Your task to perform on an android device: Show me productivity apps on the Play Store Image 0: 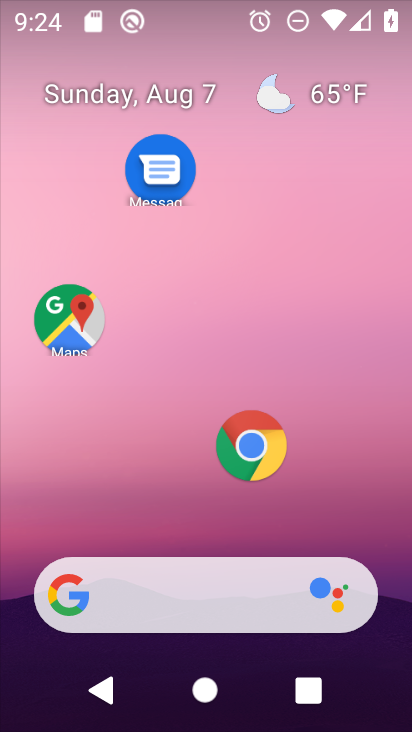
Step 0: press home button
Your task to perform on an android device: Show me productivity apps on the Play Store Image 1: 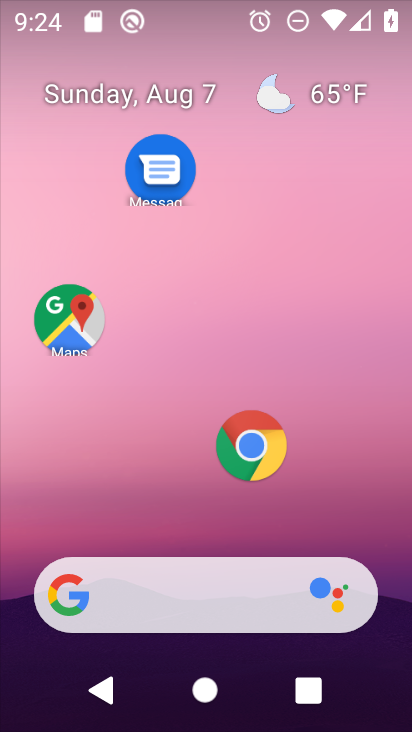
Step 1: drag from (305, 522) to (310, 82)
Your task to perform on an android device: Show me productivity apps on the Play Store Image 2: 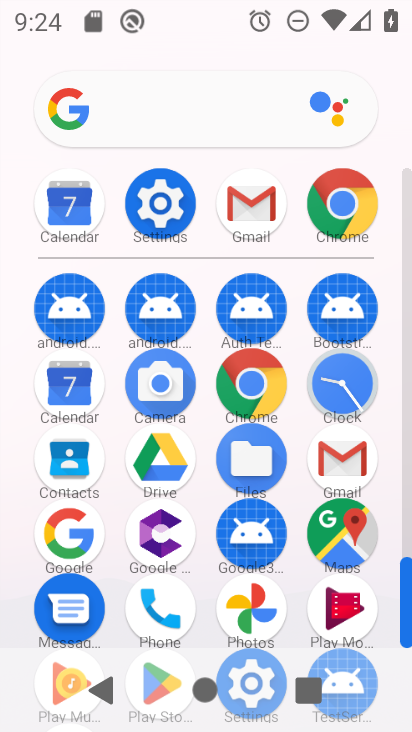
Step 2: drag from (200, 630) to (236, 121)
Your task to perform on an android device: Show me productivity apps on the Play Store Image 3: 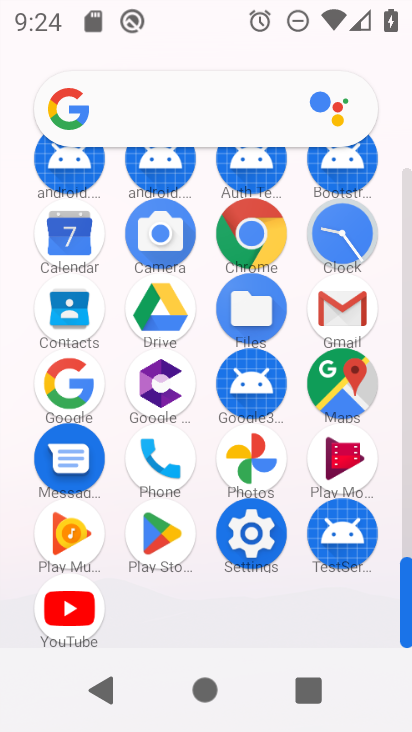
Step 3: click (152, 522)
Your task to perform on an android device: Show me productivity apps on the Play Store Image 4: 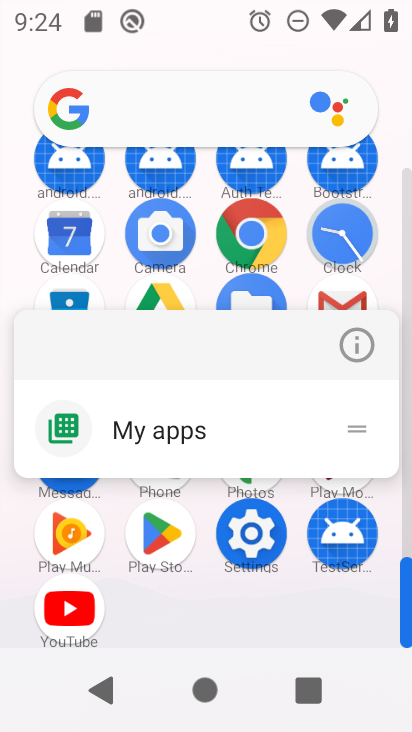
Step 4: click (155, 534)
Your task to perform on an android device: Show me productivity apps on the Play Store Image 5: 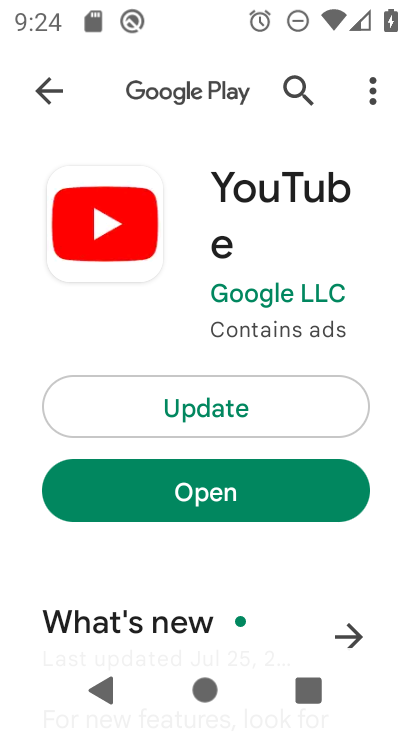
Step 5: click (57, 86)
Your task to perform on an android device: Show me productivity apps on the Play Store Image 6: 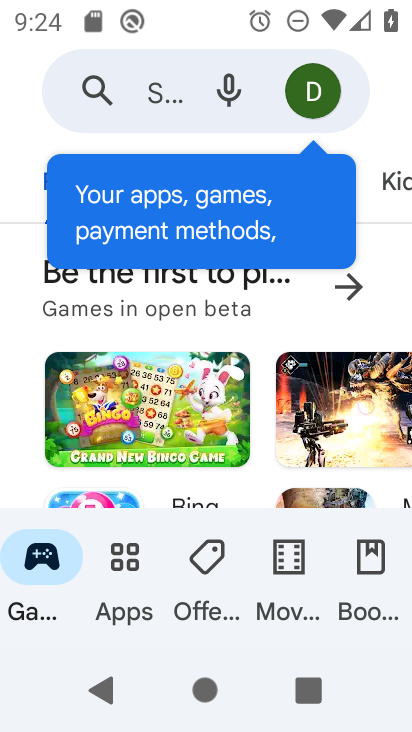
Step 6: click (124, 556)
Your task to perform on an android device: Show me productivity apps on the Play Store Image 7: 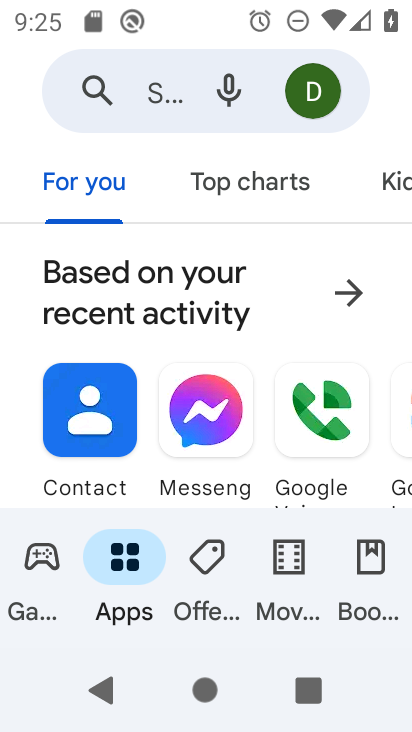
Step 7: drag from (380, 183) to (113, 199)
Your task to perform on an android device: Show me productivity apps on the Play Store Image 8: 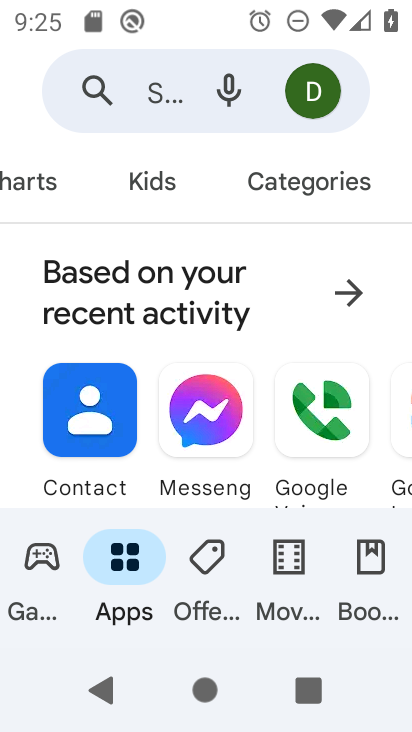
Step 8: click (307, 195)
Your task to perform on an android device: Show me productivity apps on the Play Store Image 9: 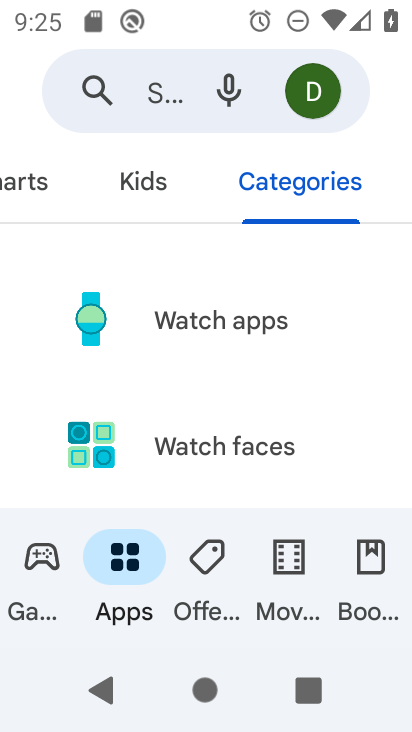
Step 9: drag from (233, 459) to (234, 55)
Your task to perform on an android device: Show me productivity apps on the Play Store Image 10: 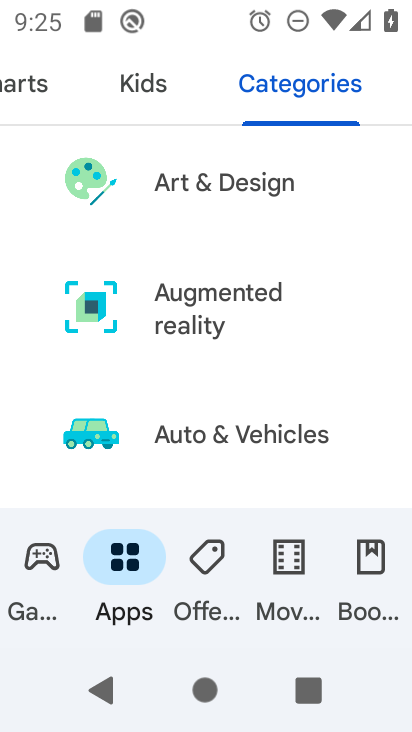
Step 10: drag from (188, 486) to (211, 43)
Your task to perform on an android device: Show me productivity apps on the Play Store Image 11: 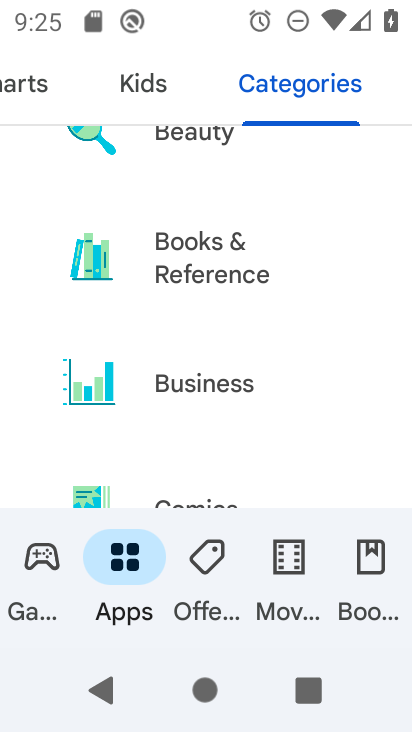
Step 11: drag from (187, 473) to (183, 133)
Your task to perform on an android device: Show me productivity apps on the Play Store Image 12: 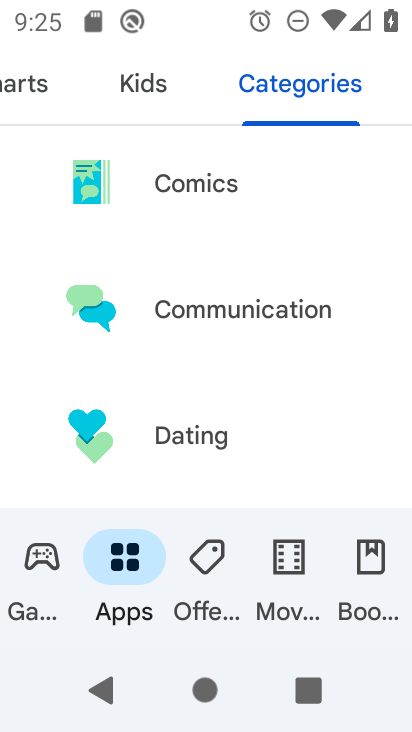
Step 12: drag from (229, 456) to (236, 121)
Your task to perform on an android device: Show me productivity apps on the Play Store Image 13: 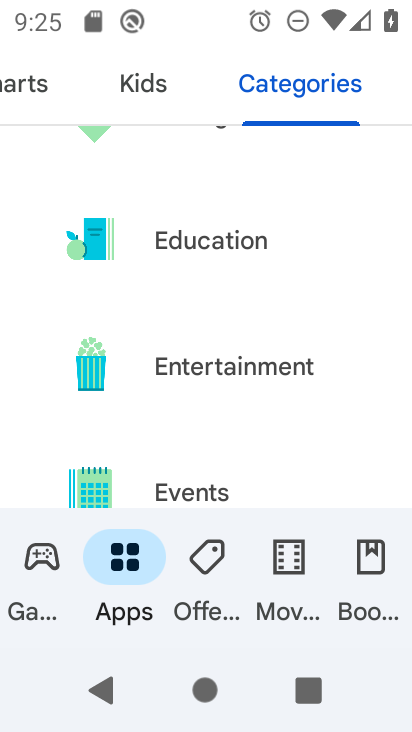
Step 13: drag from (237, 473) to (248, 110)
Your task to perform on an android device: Show me productivity apps on the Play Store Image 14: 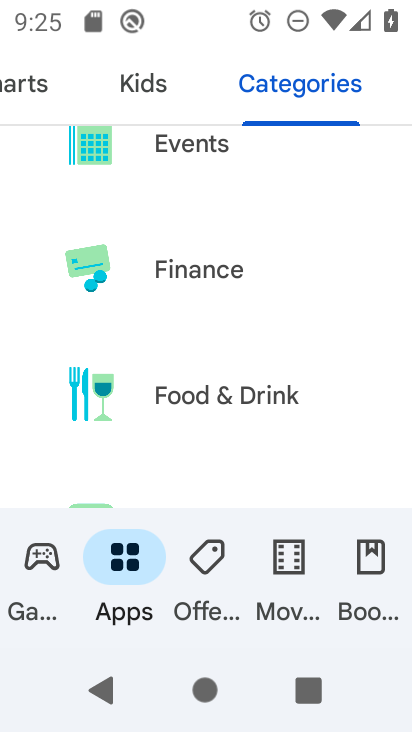
Step 14: drag from (221, 459) to (219, 120)
Your task to perform on an android device: Show me productivity apps on the Play Store Image 15: 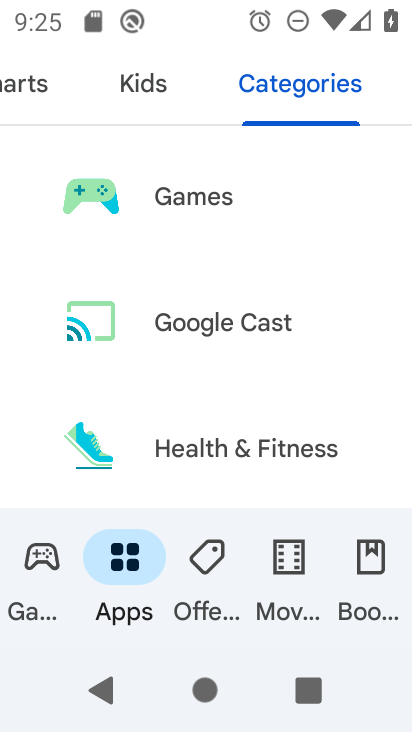
Step 15: drag from (241, 472) to (254, 126)
Your task to perform on an android device: Show me productivity apps on the Play Store Image 16: 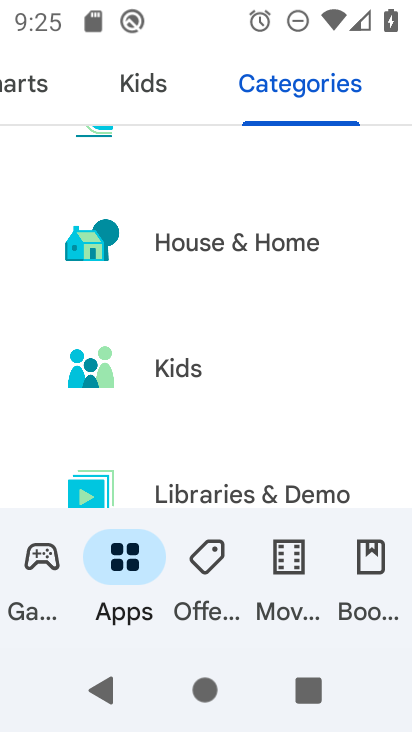
Step 16: drag from (231, 472) to (240, 142)
Your task to perform on an android device: Show me productivity apps on the Play Store Image 17: 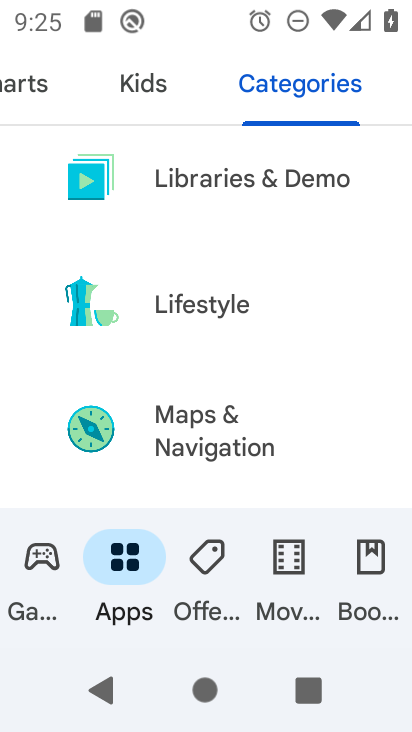
Step 17: drag from (229, 482) to (219, 121)
Your task to perform on an android device: Show me productivity apps on the Play Store Image 18: 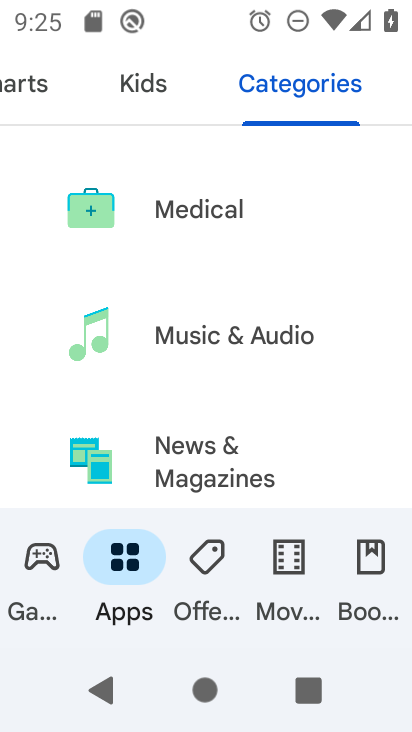
Step 18: drag from (197, 480) to (189, 81)
Your task to perform on an android device: Show me productivity apps on the Play Store Image 19: 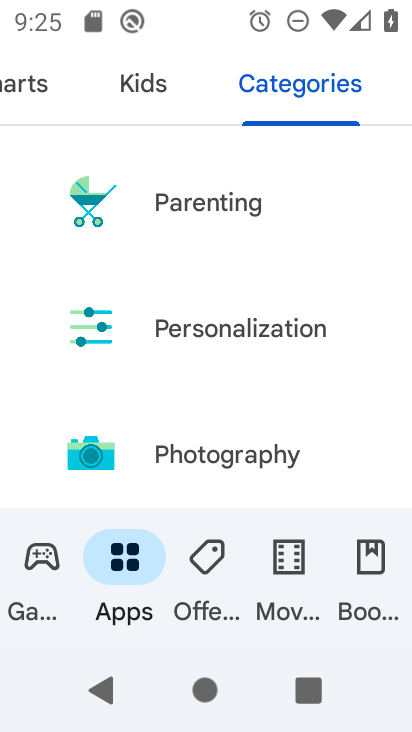
Step 19: drag from (162, 477) to (169, 235)
Your task to perform on an android device: Show me productivity apps on the Play Store Image 20: 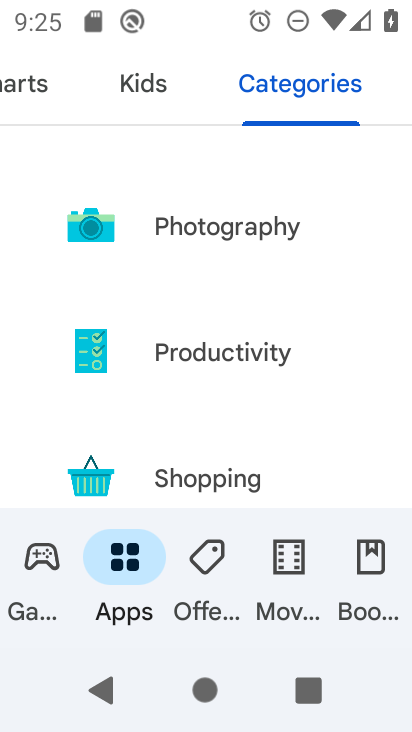
Step 20: click (129, 353)
Your task to perform on an android device: Show me productivity apps on the Play Store Image 21: 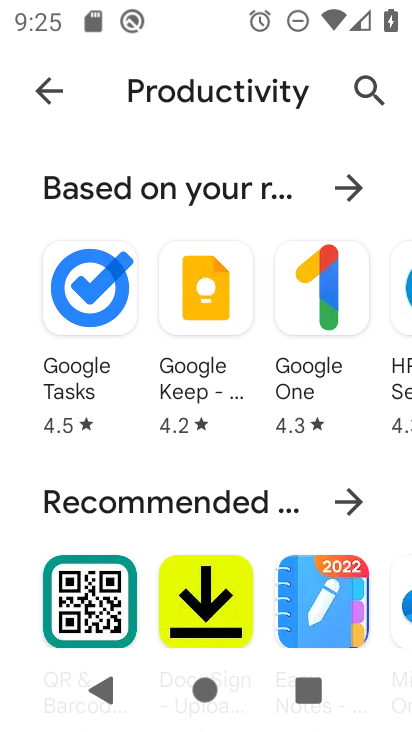
Step 21: drag from (176, 464) to (222, 60)
Your task to perform on an android device: Show me productivity apps on the Play Store Image 22: 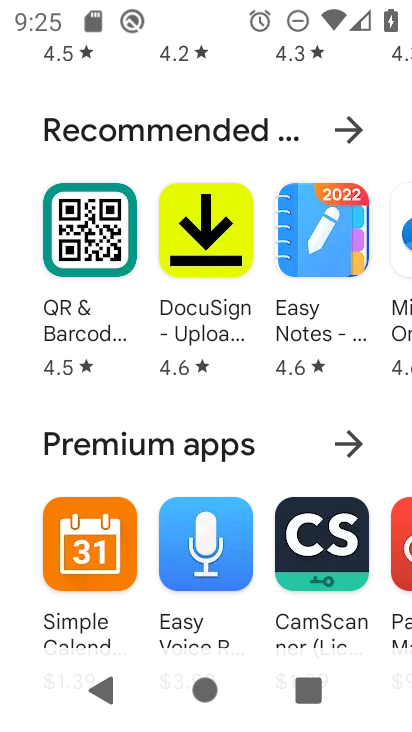
Step 22: drag from (149, 488) to (153, 69)
Your task to perform on an android device: Show me productivity apps on the Play Store Image 23: 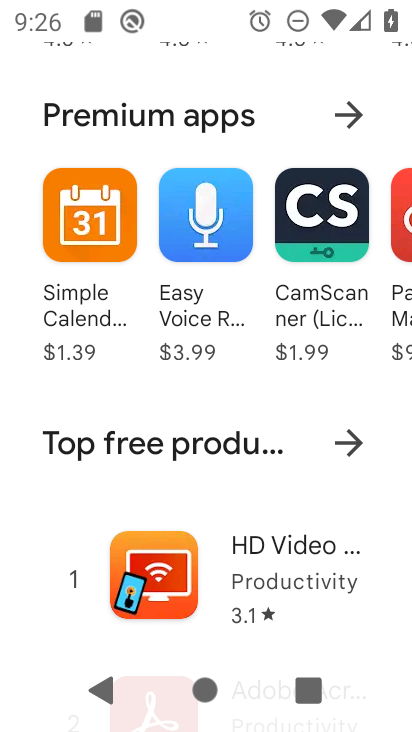
Step 23: drag from (53, 642) to (69, 187)
Your task to perform on an android device: Show me productivity apps on the Play Store Image 24: 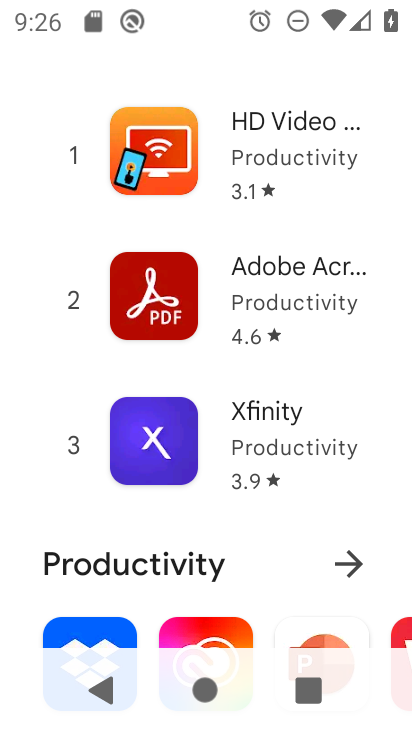
Step 24: click (344, 563)
Your task to perform on an android device: Show me productivity apps on the Play Store Image 25: 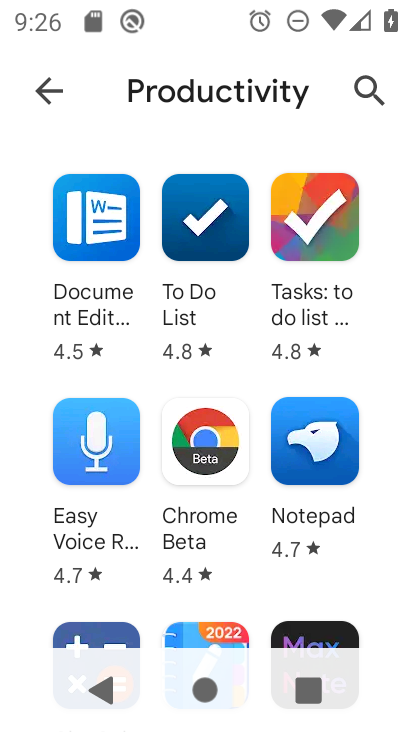
Step 25: task complete